Your task to perform on an android device: open wifi settings Image 0: 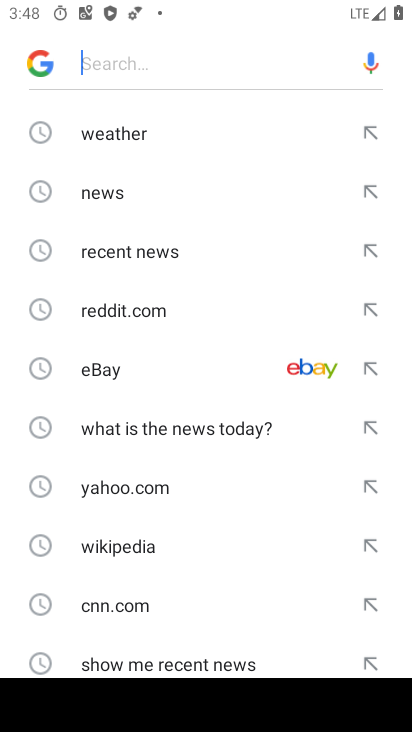
Step 0: press home button
Your task to perform on an android device: open wifi settings Image 1: 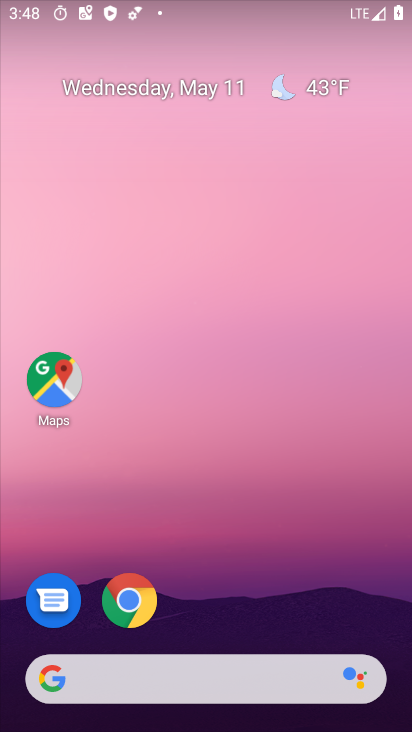
Step 1: drag from (280, 585) to (247, 37)
Your task to perform on an android device: open wifi settings Image 2: 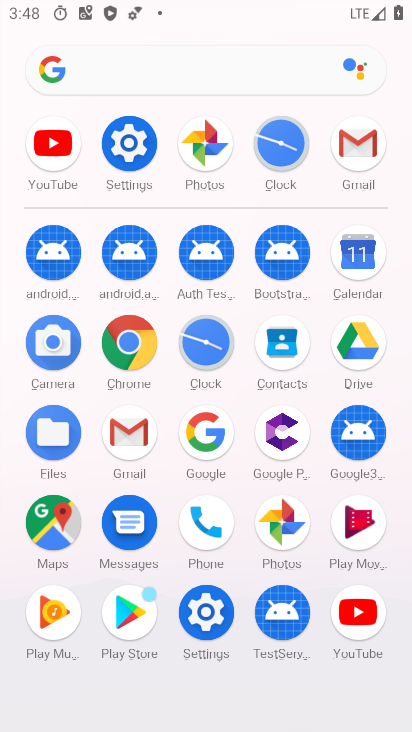
Step 2: click (123, 148)
Your task to perform on an android device: open wifi settings Image 3: 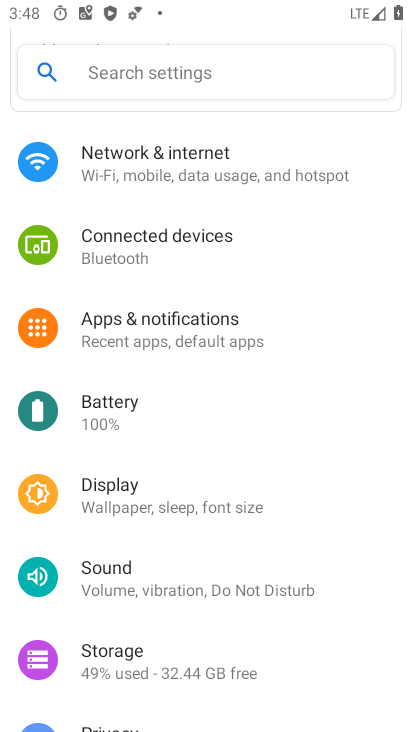
Step 3: click (138, 163)
Your task to perform on an android device: open wifi settings Image 4: 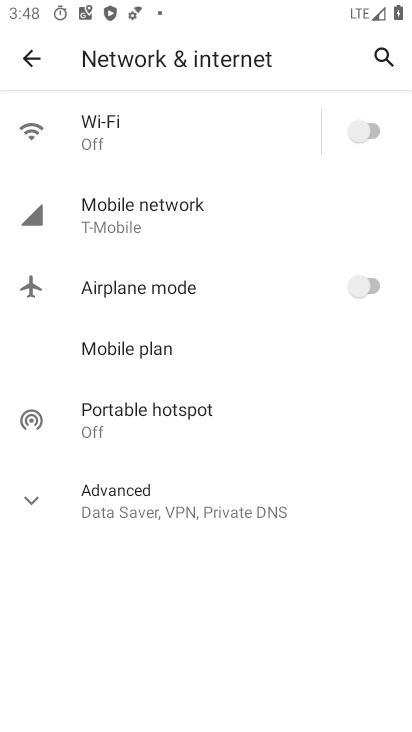
Step 4: click (82, 130)
Your task to perform on an android device: open wifi settings Image 5: 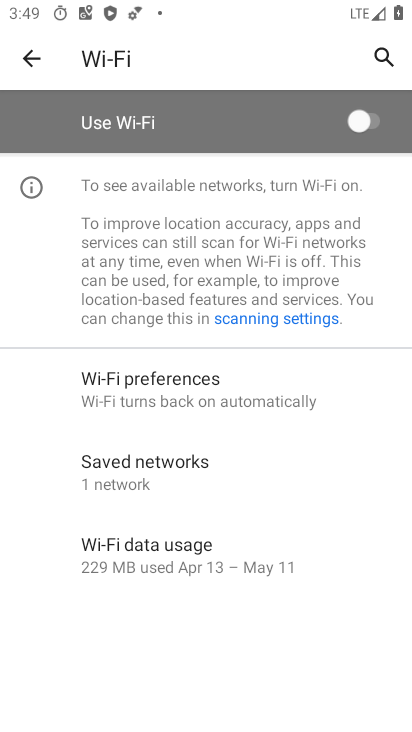
Step 5: task complete